Your task to perform on an android device: turn off picture-in-picture Image 0: 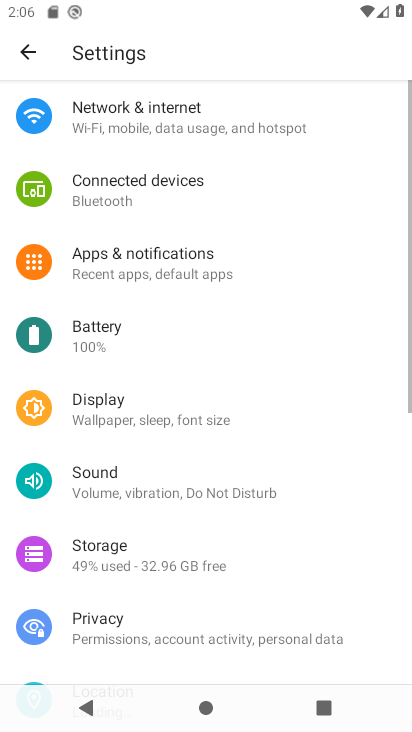
Step 0: click (193, 256)
Your task to perform on an android device: turn off picture-in-picture Image 1: 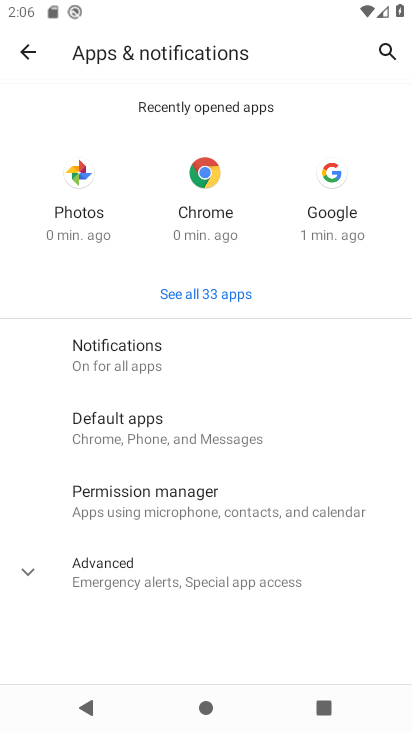
Step 1: click (33, 570)
Your task to perform on an android device: turn off picture-in-picture Image 2: 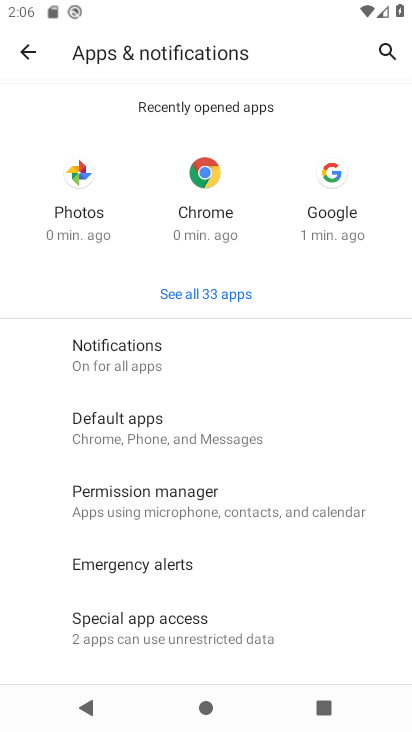
Step 2: drag from (321, 529) to (347, 356)
Your task to perform on an android device: turn off picture-in-picture Image 3: 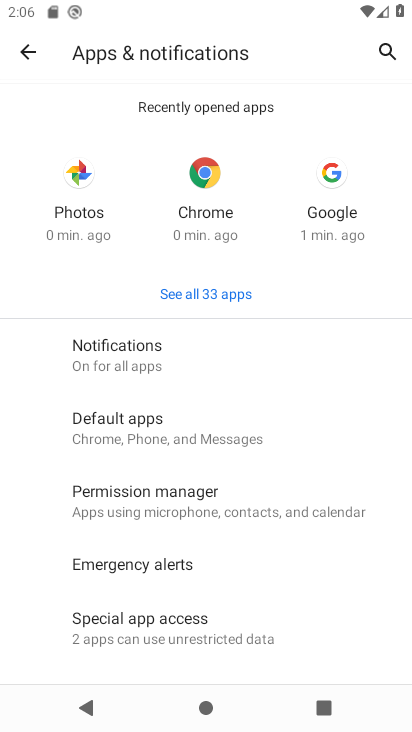
Step 3: click (154, 640)
Your task to perform on an android device: turn off picture-in-picture Image 4: 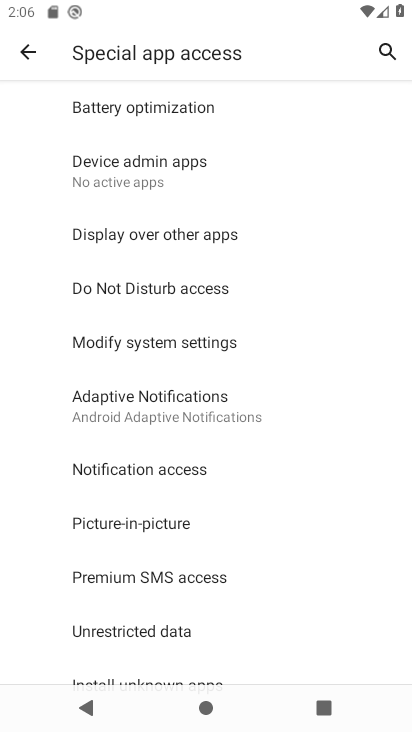
Step 4: click (158, 527)
Your task to perform on an android device: turn off picture-in-picture Image 5: 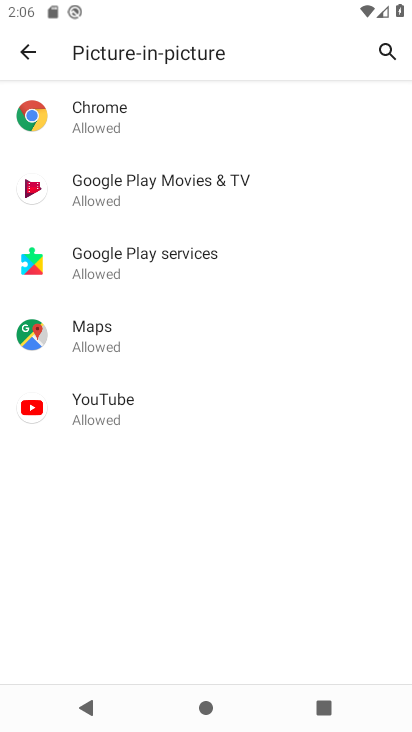
Step 5: click (197, 113)
Your task to perform on an android device: turn off picture-in-picture Image 6: 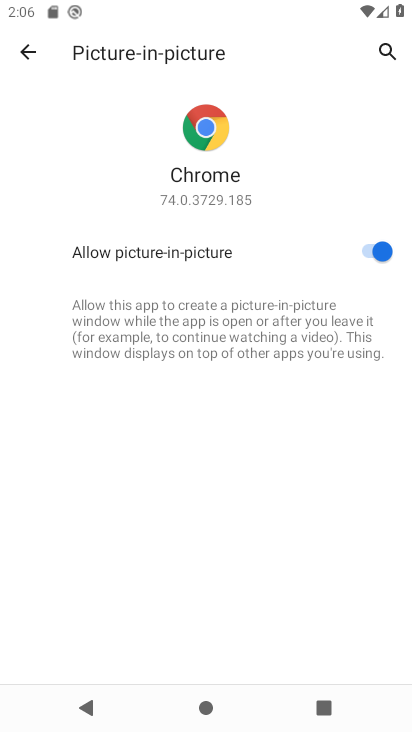
Step 6: click (368, 250)
Your task to perform on an android device: turn off picture-in-picture Image 7: 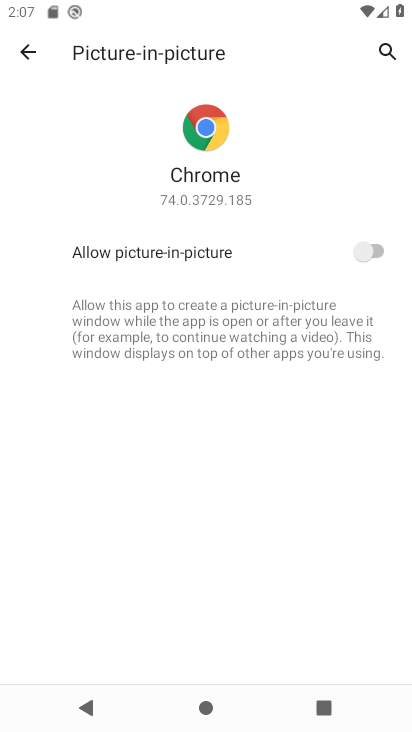
Step 7: click (46, 49)
Your task to perform on an android device: turn off picture-in-picture Image 8: 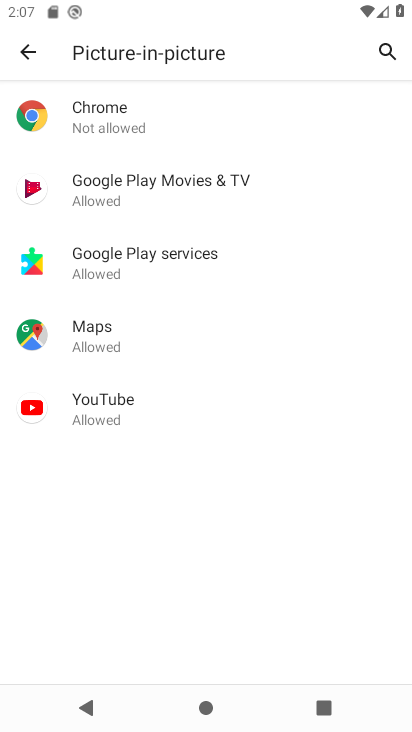
Step 8: click (172, 202)
Your task to perform on an android device: turn off picture-in-picture Image 9: 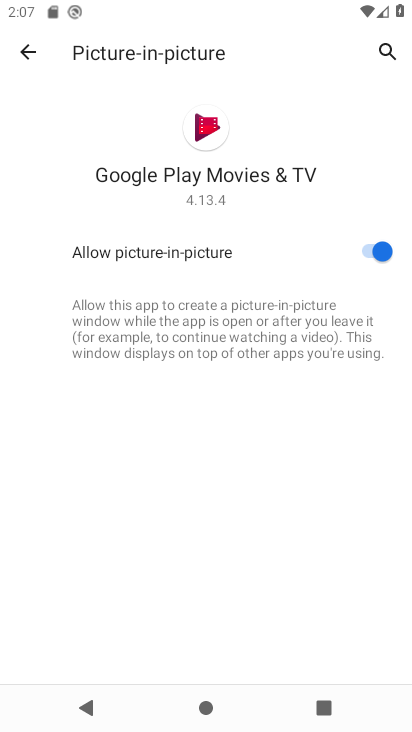
Step 9: click (362, 260)
Your task to perform on an android device: turn off picture-in-picture Image 10: 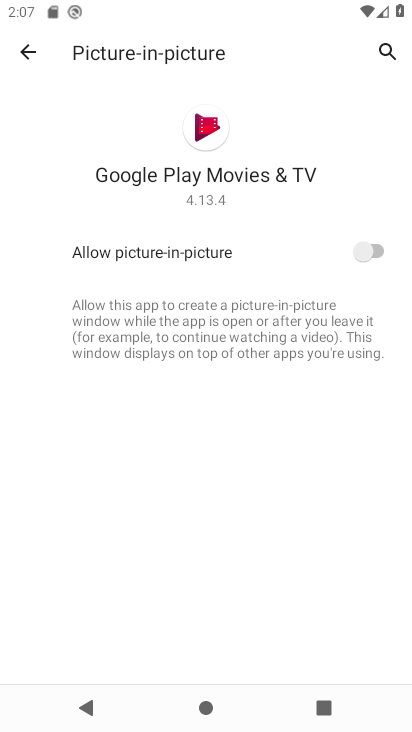
Step 10: click (31, 58)
Your task to perform on an android device: turn off picture-in-picture Image 11: 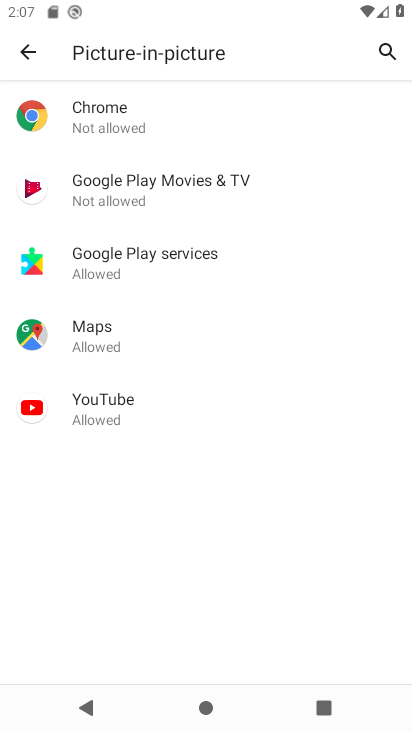
Step 11: click (150, 269)
Your task to perform on an android device: turn off picture-in-picture Image 12: 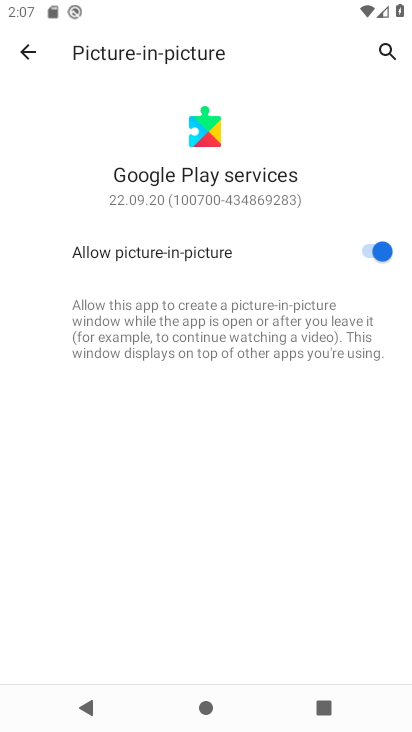
Step 12: click (372, 241)
Your task to perform on an android device: turn off picture-in-picture Image 13: 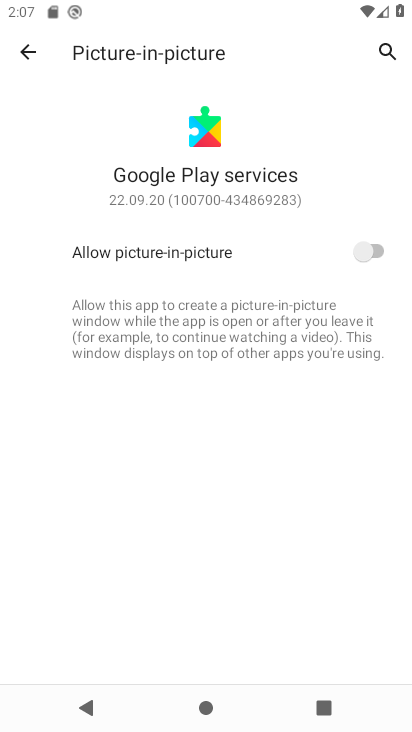
Step 13: click (22, 42)
Your task to perform on an android device: turn off picture-in-picture Image 14: 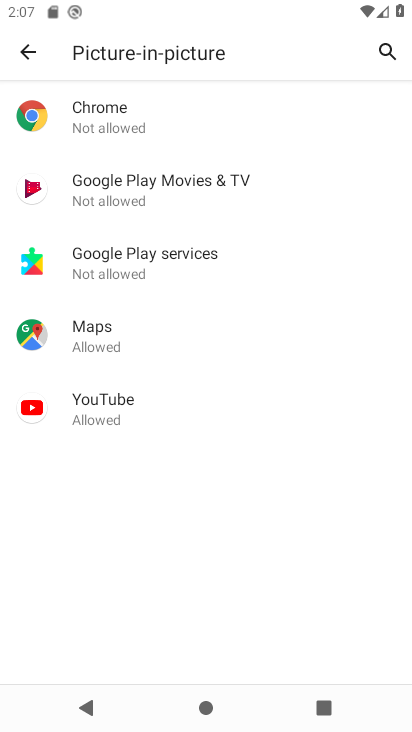
Step 14: click (106, 350)
Your task to perform on an android device: turn off picture-in-picture Image 15: 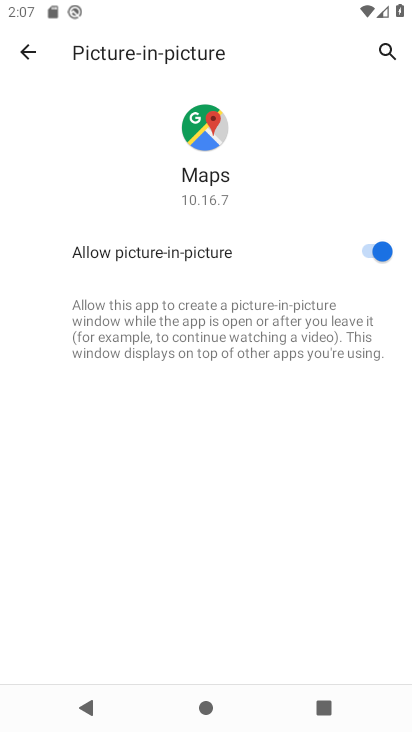
Step 15: click (362, 245)
Your task to perform on an android device: turn off picture-in-picture Image 16: 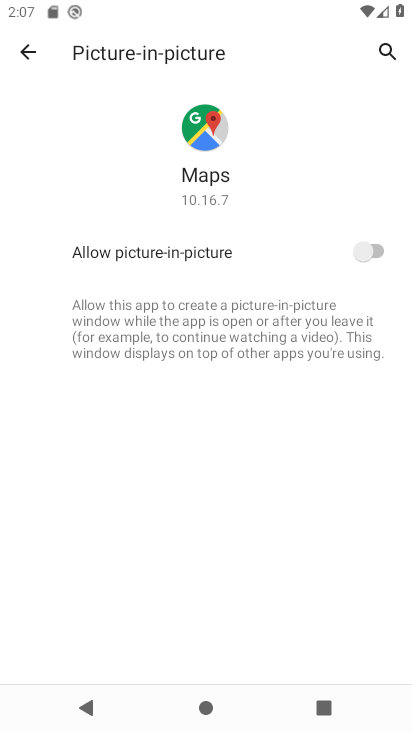
Step 16: click (27, 51)
Your task to perform on an android device: turn off picture-in-picture Image 17: 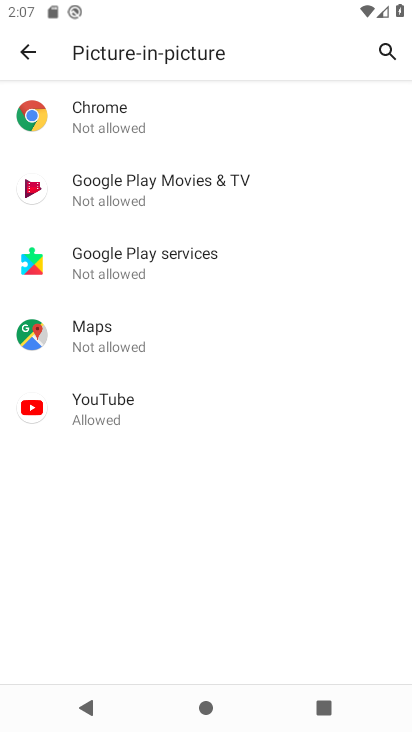
Step 17: click (107, 412)
Your task to perform on an android device: turn off picture-in-picture Image 18: 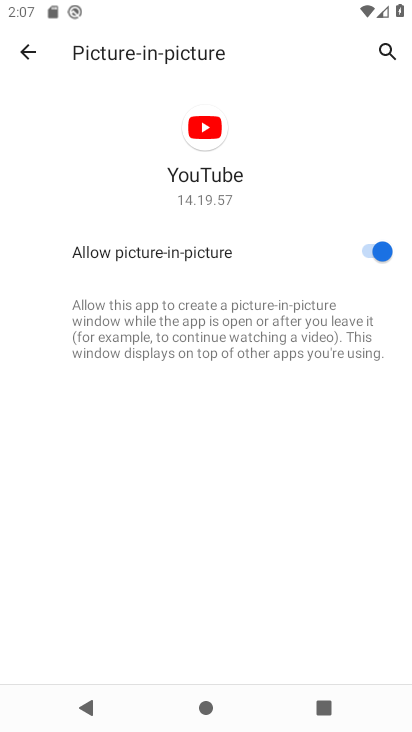
Step 18: click (374, 256)
Your task to perform on an android device: turn off picture-in-picture Image 19: 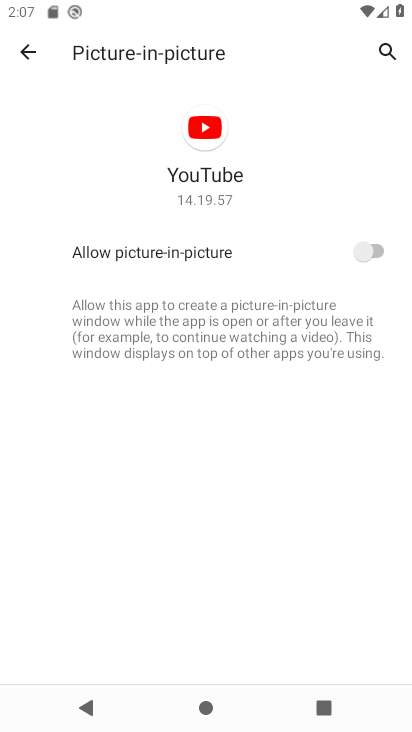
Step 19: click (31, 51)
Your task to perform on an android device: turn off picture-in-picture Image 20: 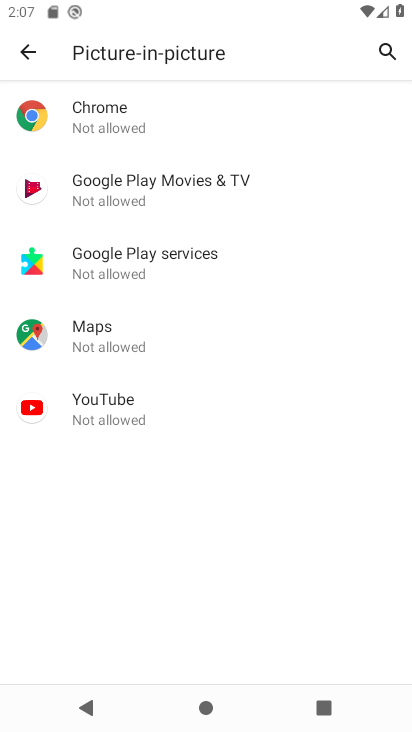
Step 20: task complete